Your task to perform on an android device: delete a single message in the gmail app Image 0: 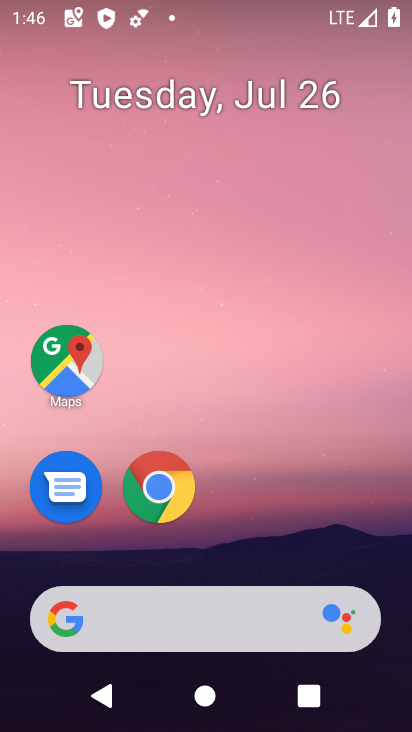
Step 0: drag from (237, 632) to (204, 157)
Your task to perform on an android device: delete a single message in the gmail app Image 1: 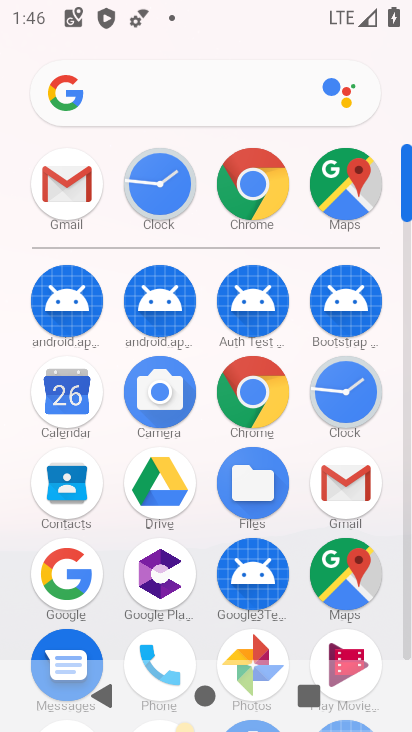
Step 1: click (354, 505)
Your task to perform on an android device: delete a single message in the gmail app Image 2: 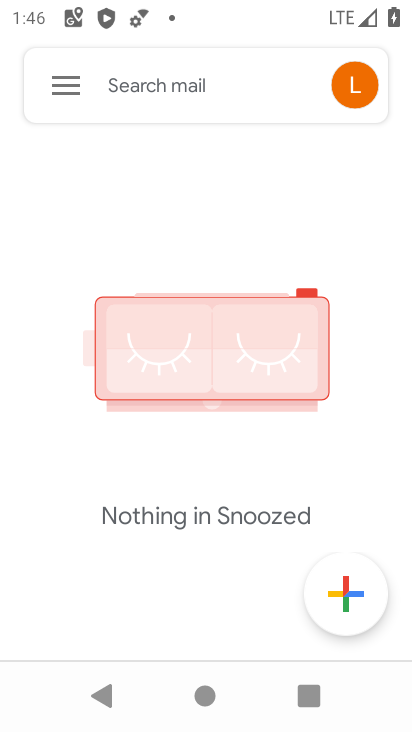
Step 2: click (72, 79)
Your task to perform on an android device: delete a single message in the gmail app Image 3: 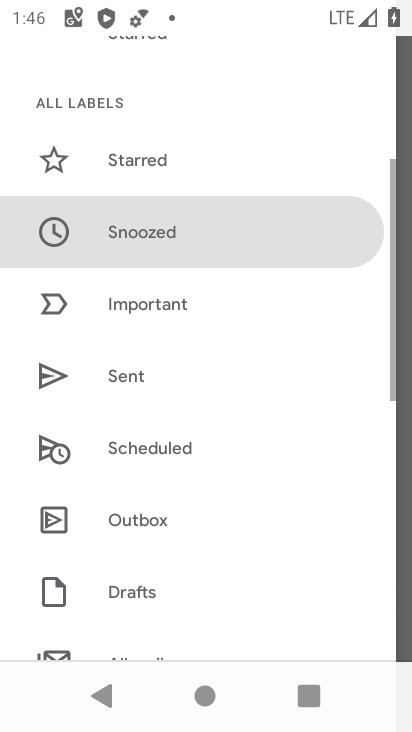
Step 3: drag from (105, 529) to (87, 164)
Your task to perform on an android device: delete a single message in the gmail app Image 4: 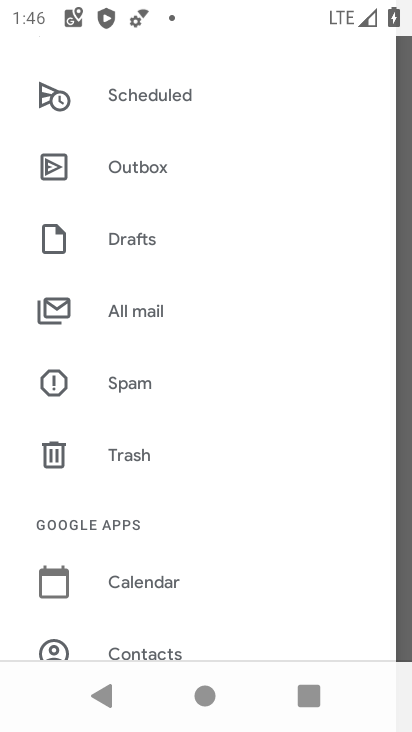
Step 4: click (128, 317)
Your task to perform on an android device: delete a single message in the gmail app Image 5: 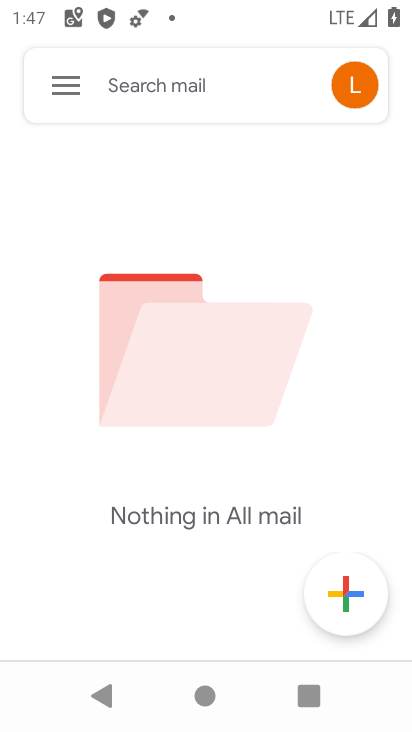
Step 5: task complete